Your task to perform on an android device: change notification settings in the gmail app Image 0: 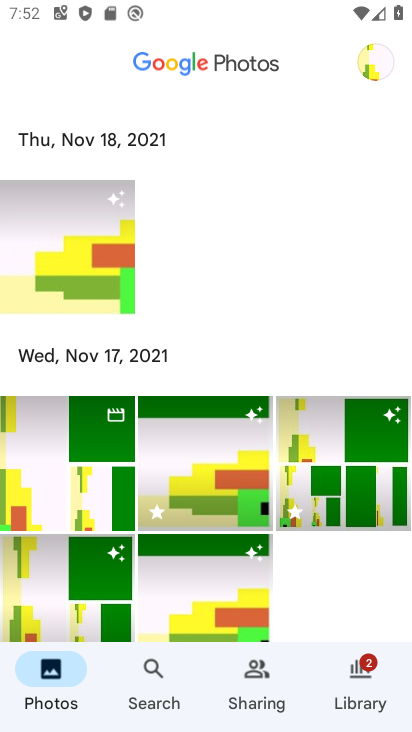
Step 0: press home button
Your task to perform on an android device: change notification settings in the gmail app Image 1: 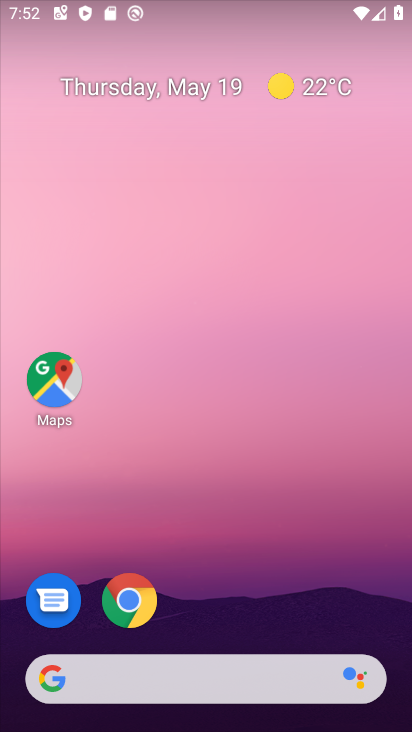
Step 1: drag from (321, 595) to (302, 180)
Your task to perform on an android device: change notification settings in the gmail app Image 2: 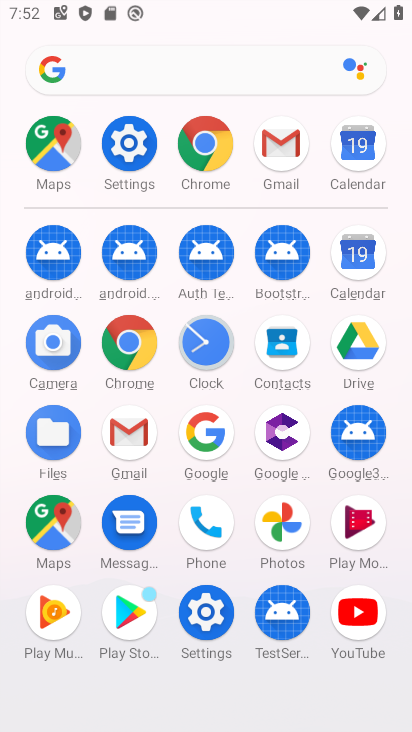
Step 2: click (269, 147)
Your task to perform on an android device: change notification settings in the gmail app Image 3: 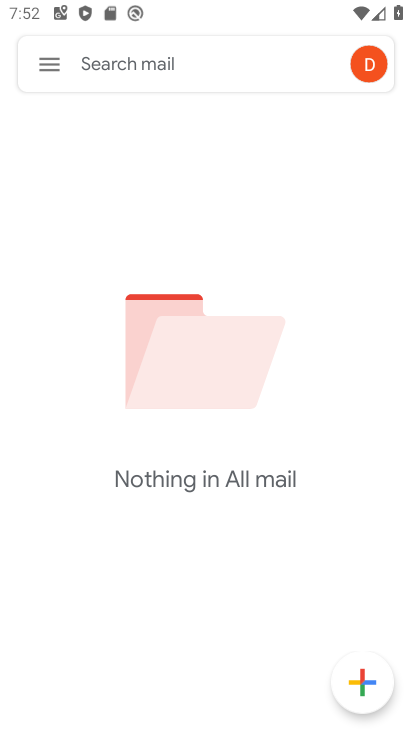
Step 3: click (33, 66)
Your task to perform on an android device: change notification settings in the gmail app Image 4: 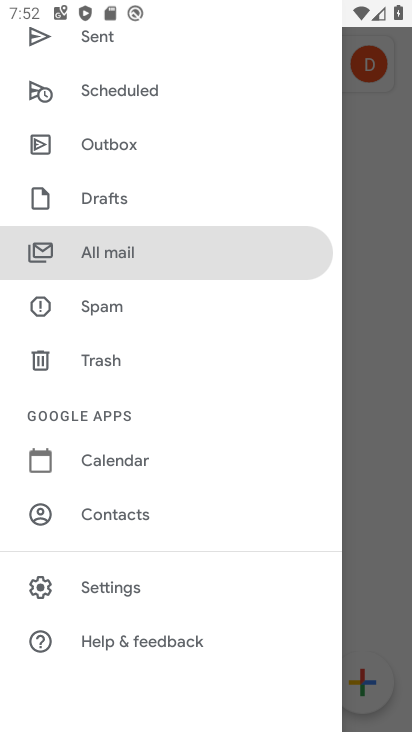
Step 4: click (138, 587)
Your task to perform on an android device: change notification settings in the gmail app Image 5: 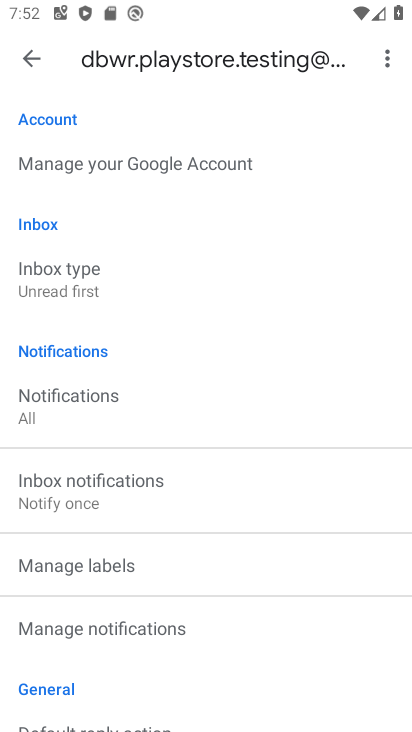
Step 5: click (72, 391)
Your task to perform on an android device: change notification settings in the gmail app Image 6: 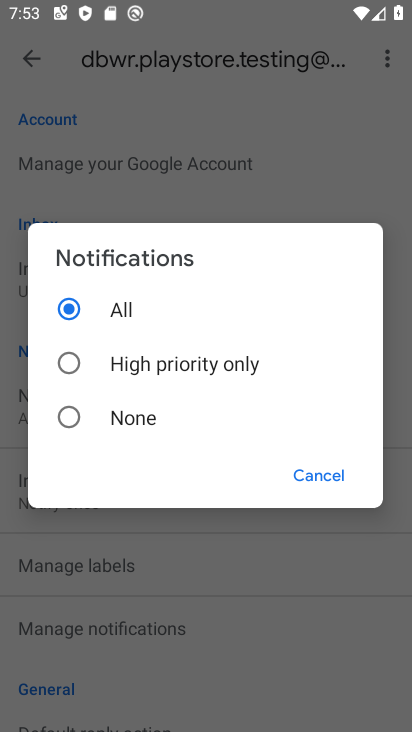
Step 6: click (137, 364)
Your task to perform on an android device: change notification settings in the gmail app Image 7: 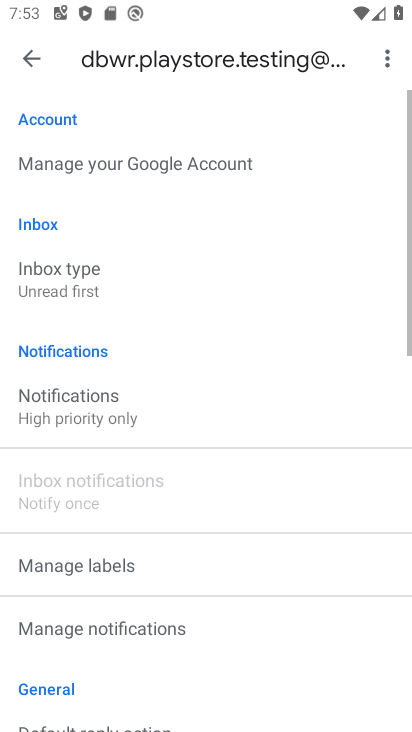
Step 7: task complete